Your task to perform on an android device: Open Yahoo.com Image 0: 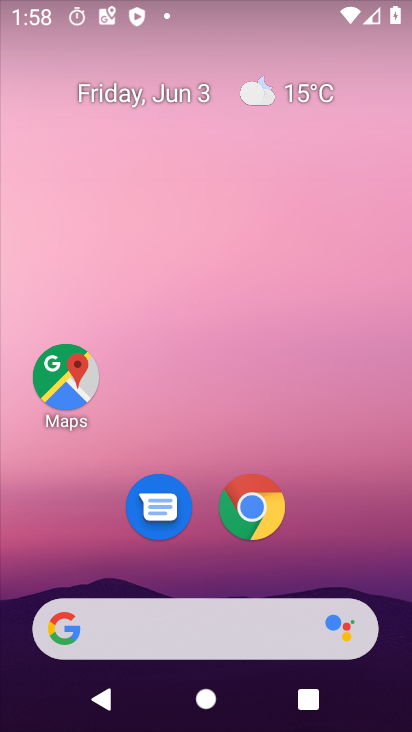
Step 0: drag from (399, 626) to (229, 122)
Your task to perform on an android device: Open Yahoo.com Image 1: 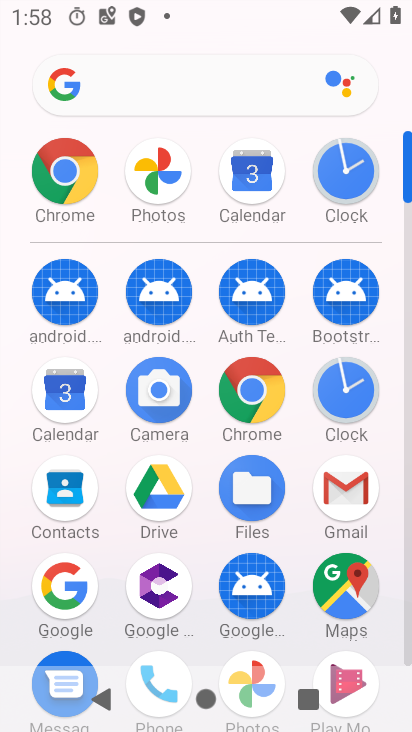
Step 1: click (47, 593)
Your task to perform on an android device: Open Yahoo.com Image 2: 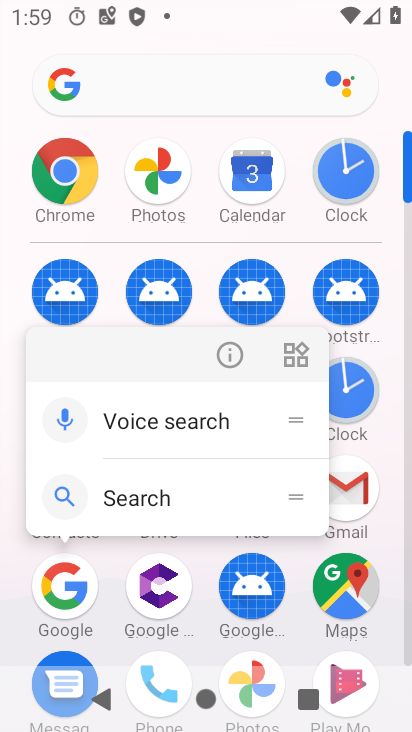
Step 2: click (53, 579)
Your task to perform on an android device: Open Yahoo.com Image 3: 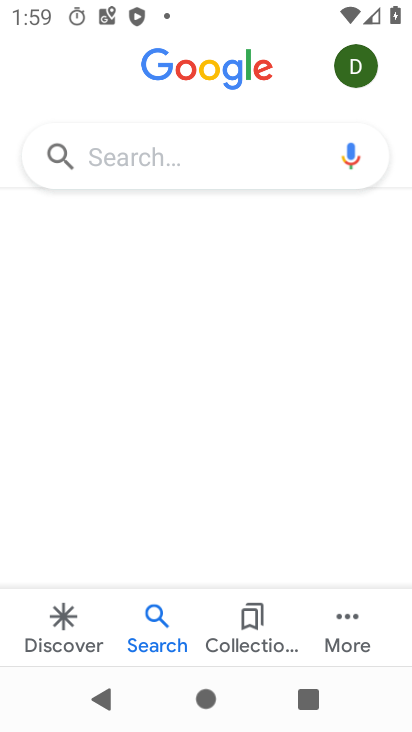
Step 3: click (185, 167)
Your task to perform on an android device: Open Yahoo.com Image 4: 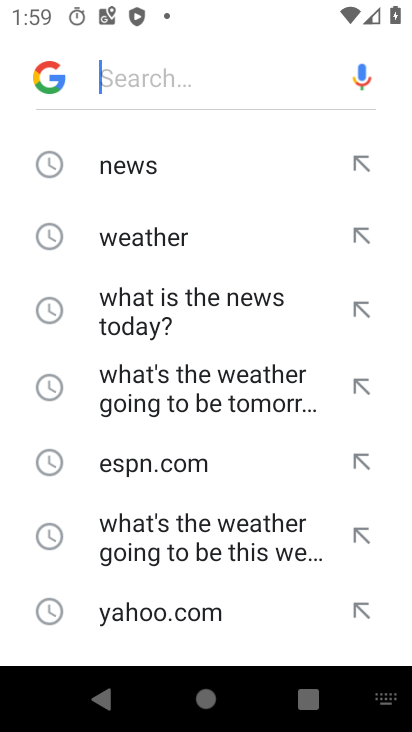
Step 4: click (216, 627)
Your task to perform on an android device: Open Yahoo.com Image 5: 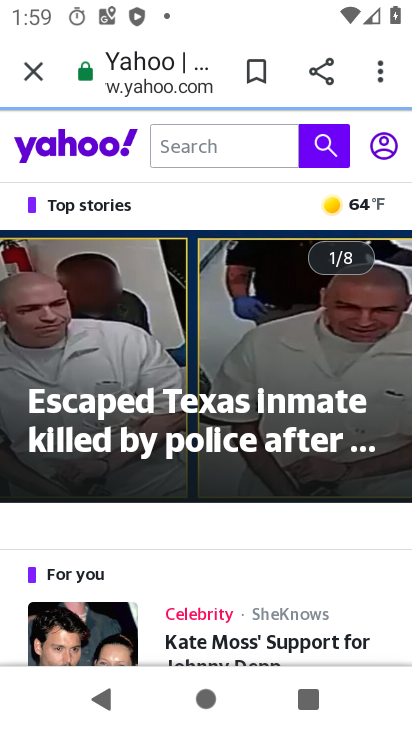
Step 5: task complete